Your task to perform on an android device: Open the web browser Image 0: 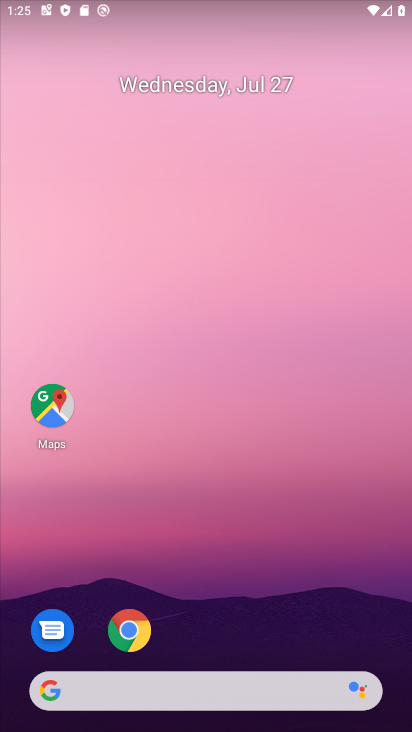
Step 0: click (125, 634)
Your task to perform on an android device: Open the web browser Image 1: 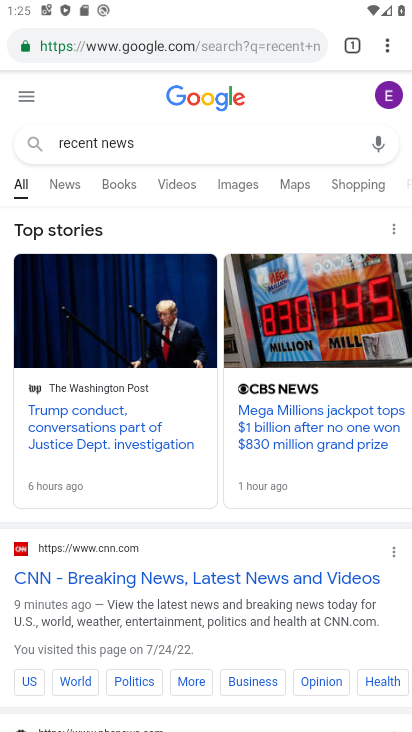
Step 1: task complete